Your task to perform on an android device: Open calendar and show me the first week of next month Image 0: 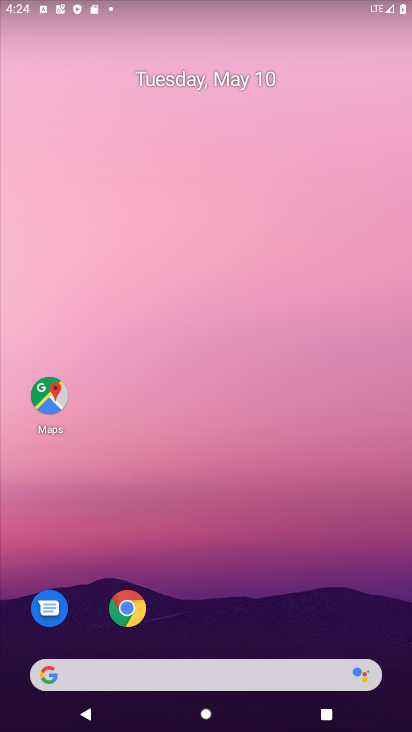
Step 0: drag from (372, 629) to (279, 22)
Your task to perform on an android device: Open calendar and show me the first week of next month Image 1: 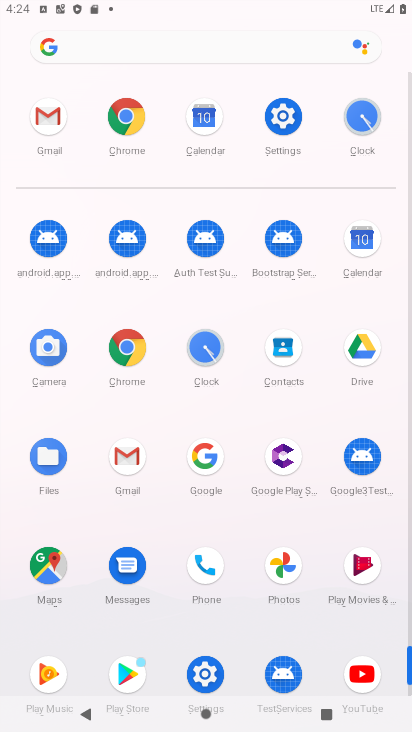
Step 1: click (360, 236)
Your task to perform on an android device: Open calendar and show me the first week of next month Image 2: 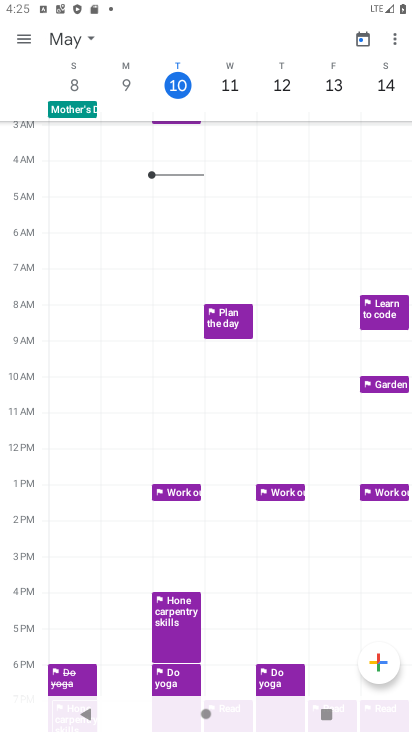
Step 2: click (83, 33)
Your task to perform on an android device: Open calendar and show me the first week of next month Image 3: 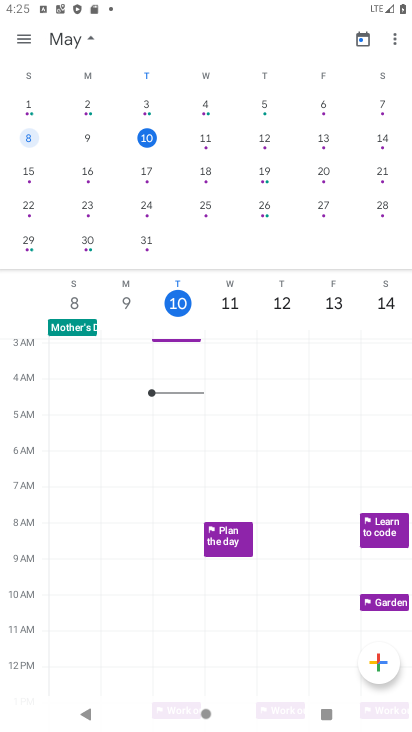
Step 3: drag from (363, 168) to (25, 154)
Your task to perform on an android device: Open calendar and show me the first week of next month Image 4: 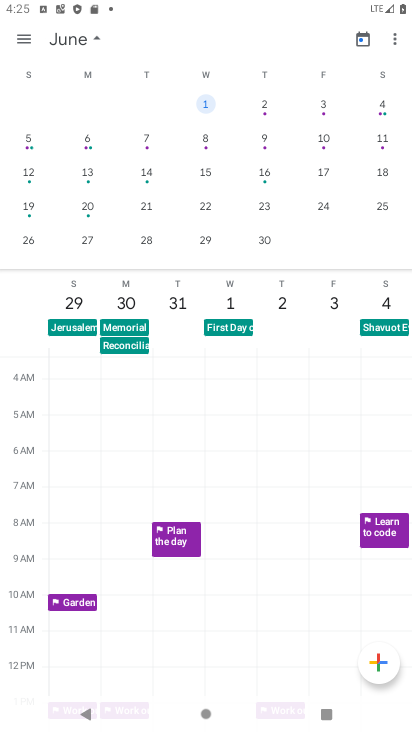
Step 4: click (205, 103)
Your task to perform on an android device: Open calendar and show me the first week of next month Image 5: 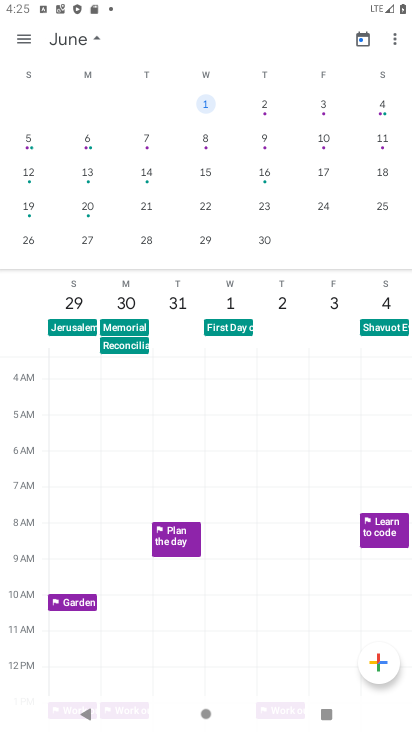
Step 5: task complete